Your task to perform on an android device: Go to ESPN.com Image 0: 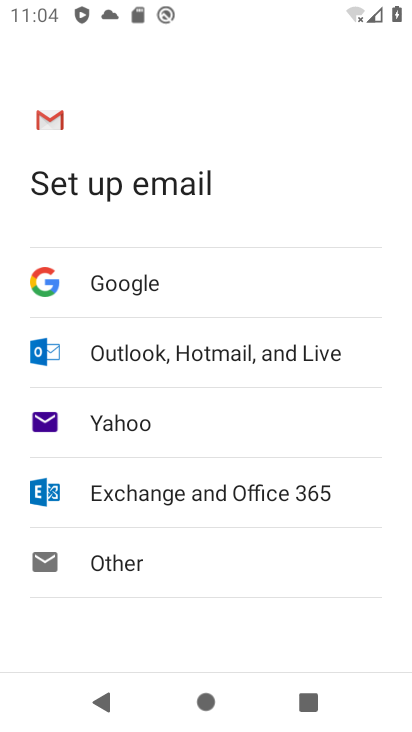
Step 0: press home button
Your task to perform on an android device: Go to ESPN.com Image 1: 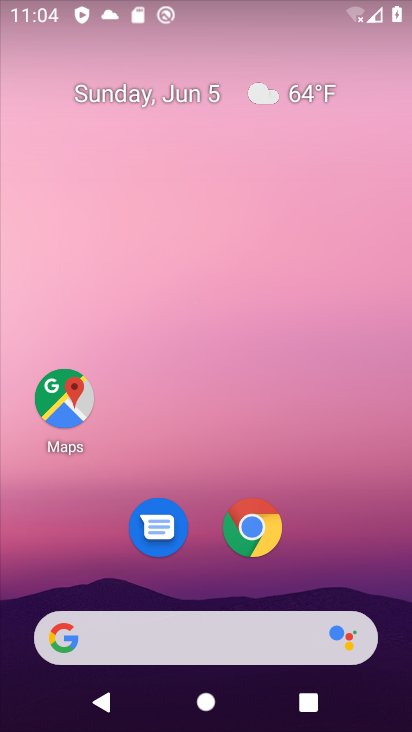
Step 1: click (241, 527)
Your task to perform on an android device: Go to ESPN.com Image 2: 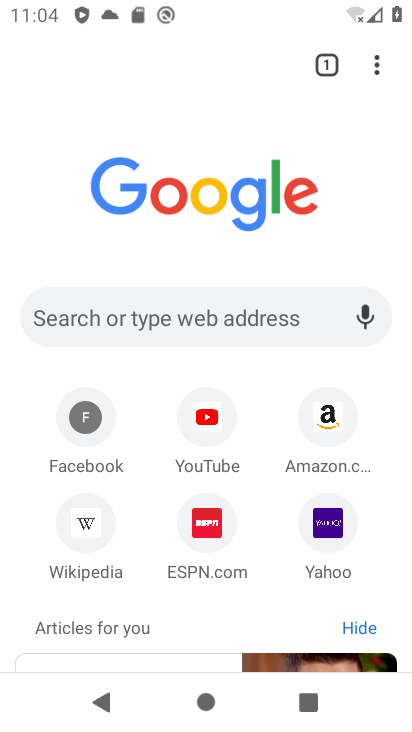
Step 2: click (199, 537)
Your task to perform on an android device: Go to ESPN.com Image 3: 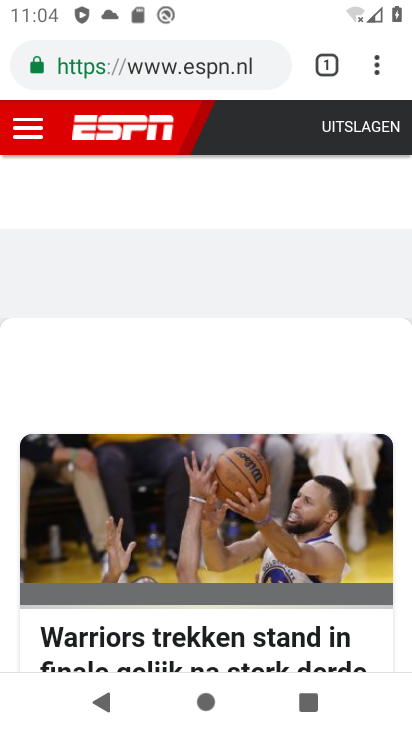
Step 3: task complete